Your task to perform on an android device: change your default location settings in chrome Image 0: 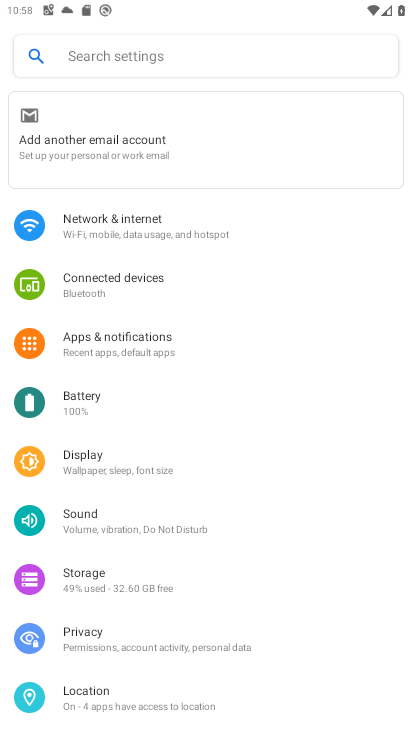
Step 0: press home button
Your task to perform on an android device: change your default location settings in chrome Image 1: 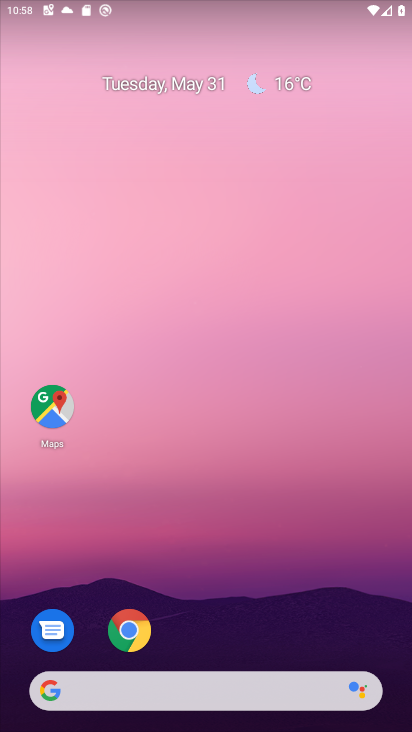
Step 1: click (123, 630)
Your task to perform on an android device: change your default location settings in chrome Image 2: 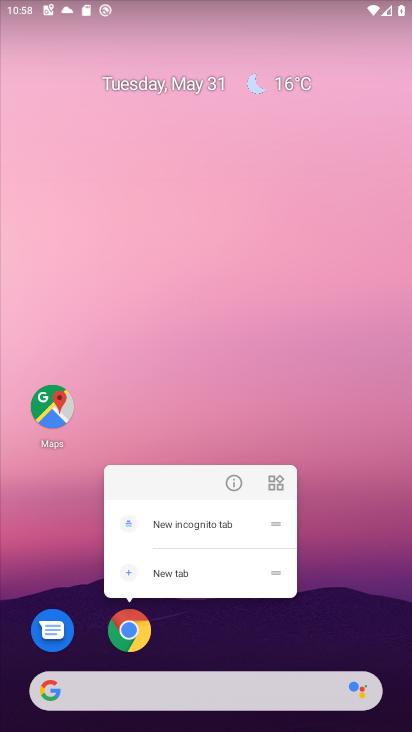
Step 2: click (128, 628)
Your task to perform on an android device: change your default location settings in chrome Image 3: 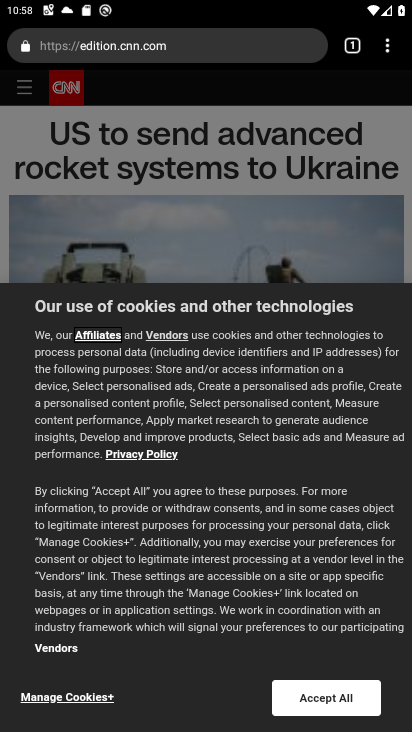
Step 3: drag from (388, 46) to (230, 504)
Your task to perform on an android device: change your default location settings in chrome Image 4: 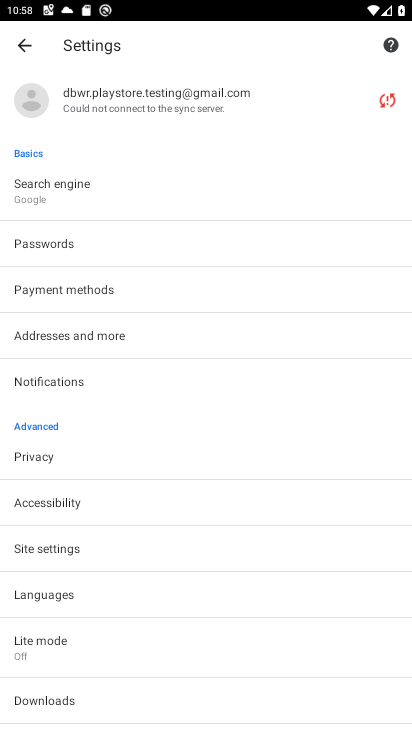
Step 4: click (65, 541)
Your task to perform on an android device: change your default location settings in chrome Image 5: 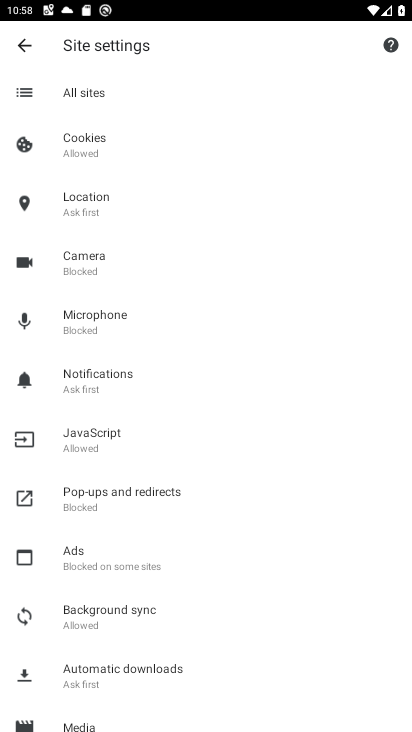
Step 5: click (95, 193)
Your task to perform on an android device: change your default location settings in chrome Image 6: 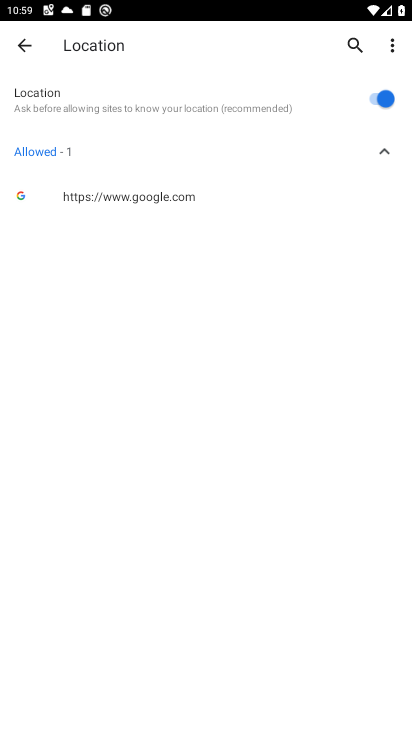
Step 6: click (369, 105)
Your task to perform on an android device: change your default location settings in chrome Image 7: 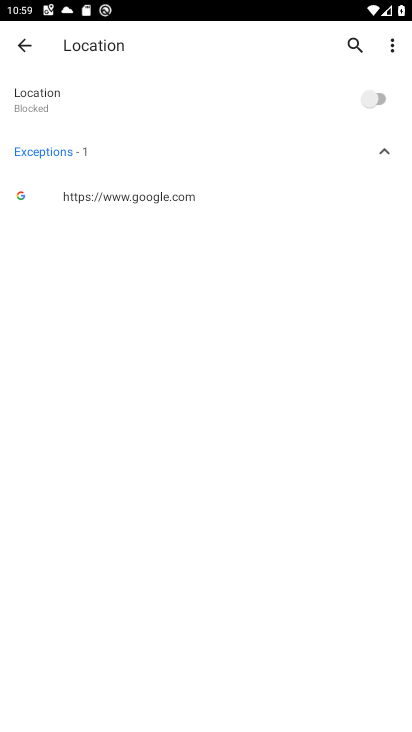
Step 7: task complete